Your task to perform on an android device: Search for pizza restaurants on Maps Image 0: 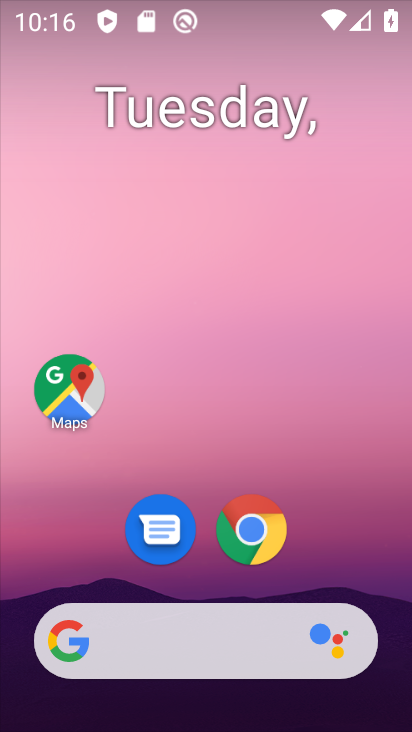
Step 0: click (72, 396)
Your task to perform on an android device: Search for pizza restaurants on Maps Image 1: 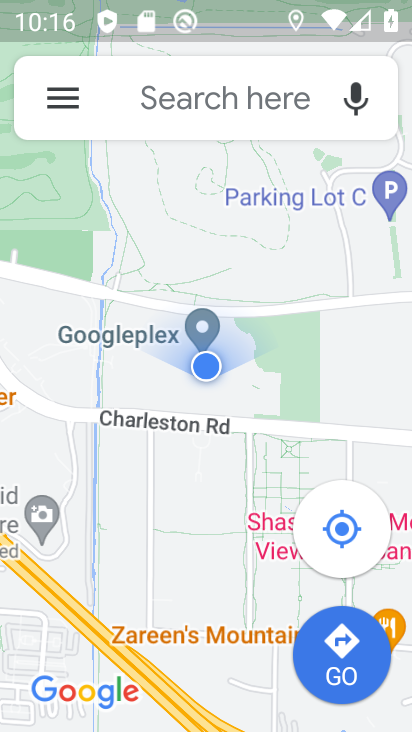
Step 1: click (183, 114)
Your task to perform on an android device: Search for pizza restaurants on Maps Image 2: 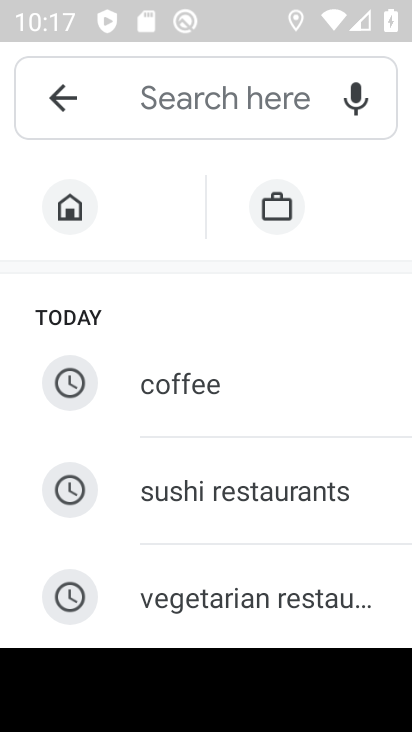
Step 2: type "pizza restaurants"
Your task to perform on an android device: Search for pizza restaurants on Maps Image 3: 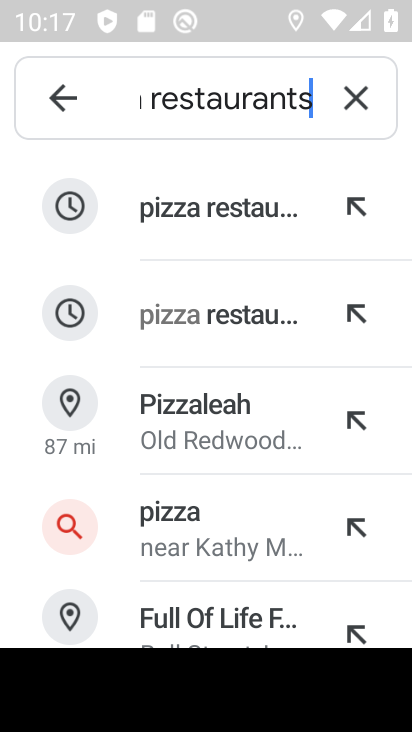
Step 3: click (195, 207)
Your task to perform on an android device: Search for pizza restaurants on Maps Image 4: 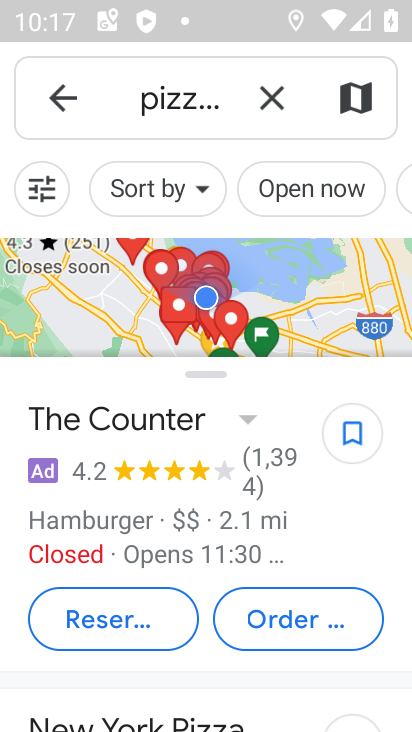
Step 4: task complete